Your task to perform on an android device: Go to Android settings Image 0: 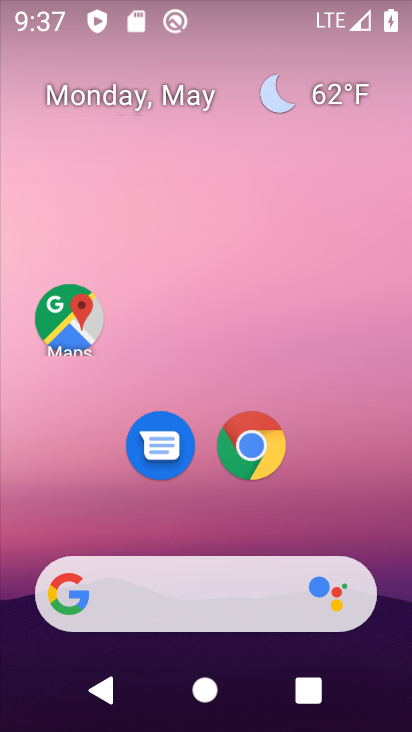
Step 0: drag from (392, 593) to (324, 58)
Your task to perform on an android device: Go to Android settings Image 1: 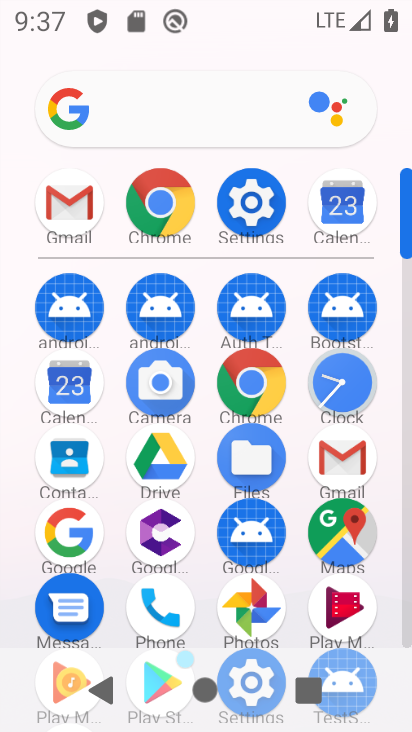
Step 1: click (254, 217)
Your task to perform on an android device: Go to Android settings Image 2: 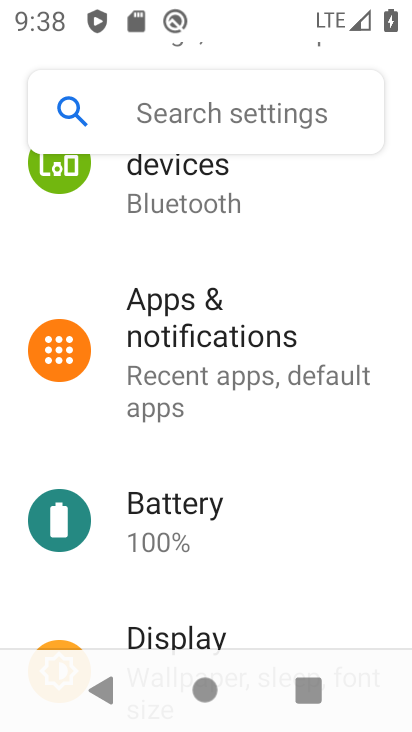
Step 2: drag from (141, 619) to (204, 227)
Your task to perform on an android device: Go to Android settings Image 3: 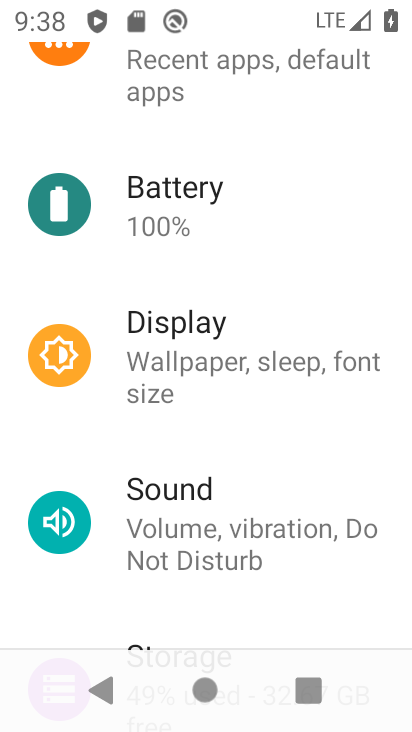
Step 3: drag from (164, 565) to (234, 13)
Your task to perform on an android device: Go to Android settings Image 4: 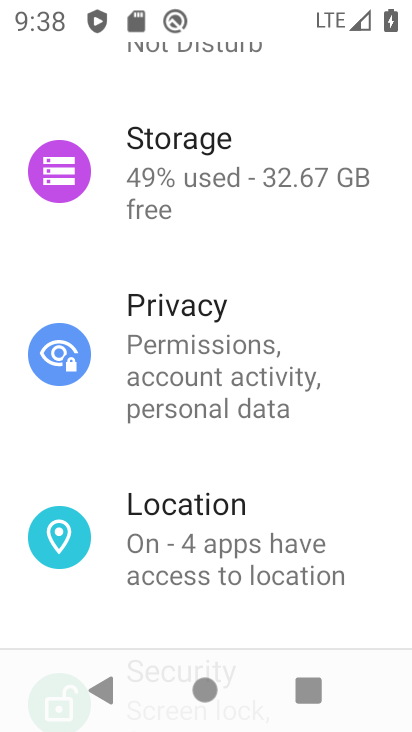
Step 4: drag from (219, 608) to (260, 102)
Your task to perform on an android device: Go to Android settings Image 5: 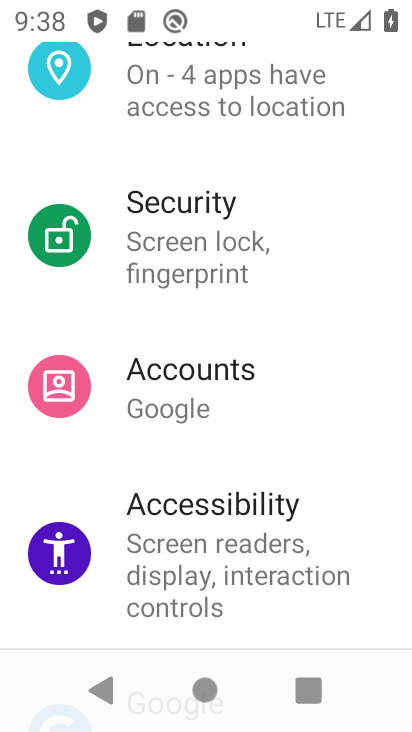
Step 5: drag from (164, 526) to (236, 5)
Your task to perform on an android device: Go to Android settings Image 6: 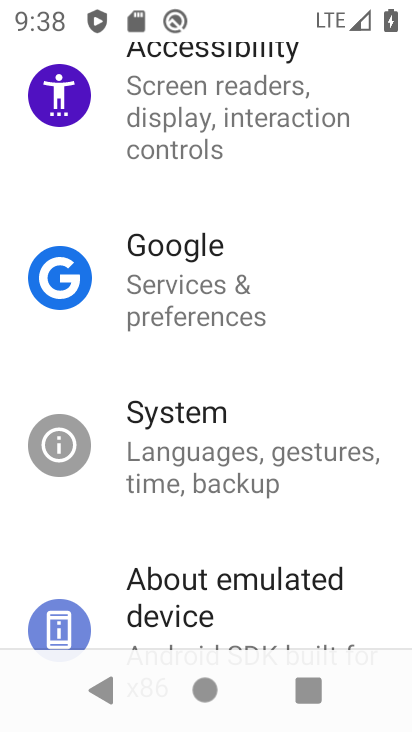
Step 6: click (116, 618)
Your task to perform on an android device: Go to Android settings Image 7: 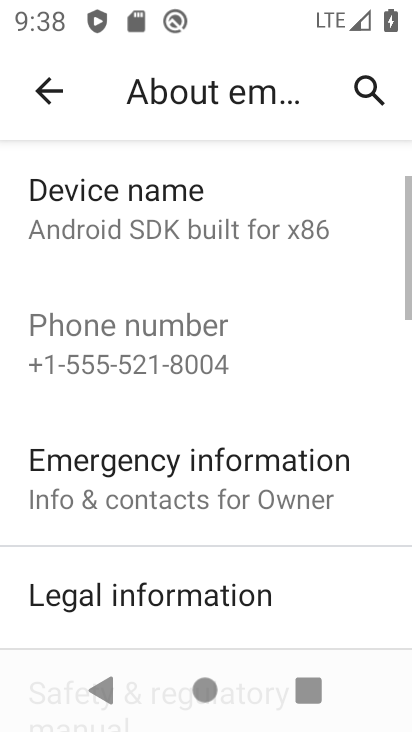
Step 7: drag from (143, 587) to (257, 129)
Your task to perform on an android device: Go to Android settings Image 8: 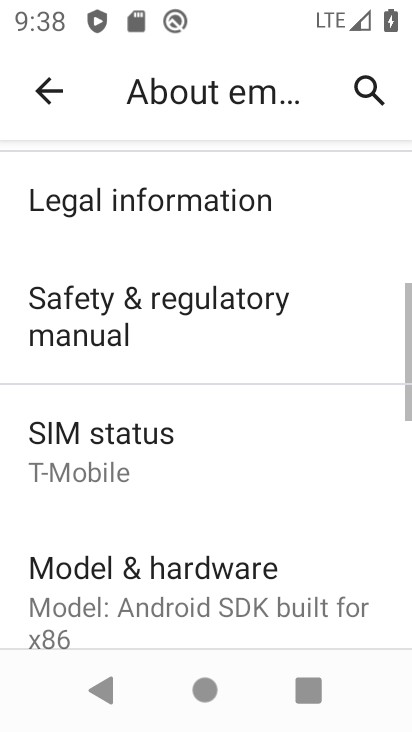
Step 8: drag from (169, 490) to (186, 94)
Your task to perform on an android device: Go to Android settings Image 9: 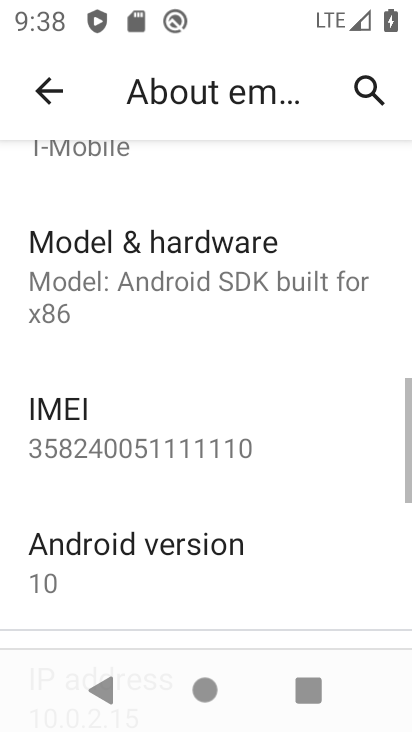
Step 9: click (166, 544)
Your task to perform on an android device: Go to Android settings Image 10: 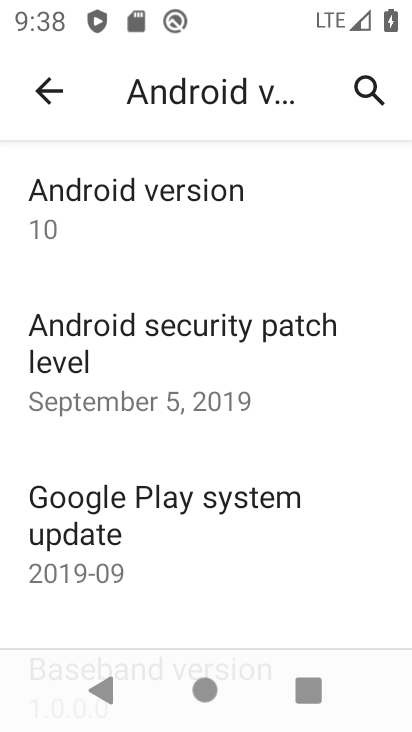
Step 10: task complete